Your task to perform on an android device: Open notification settings Image 0: 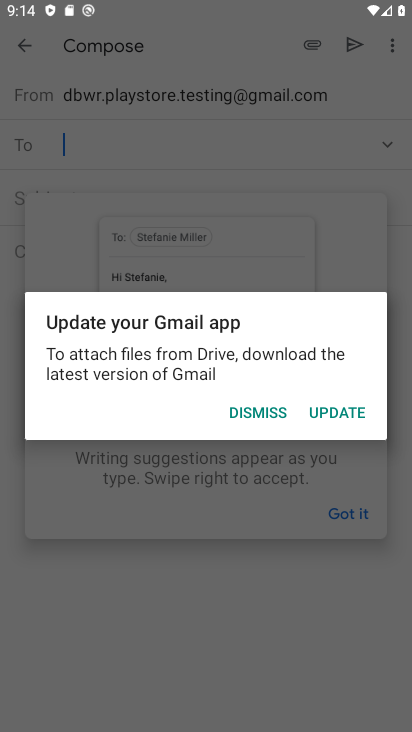
Step 0: press back button
Your task to perform on an android device: Open notification settings Image 1: 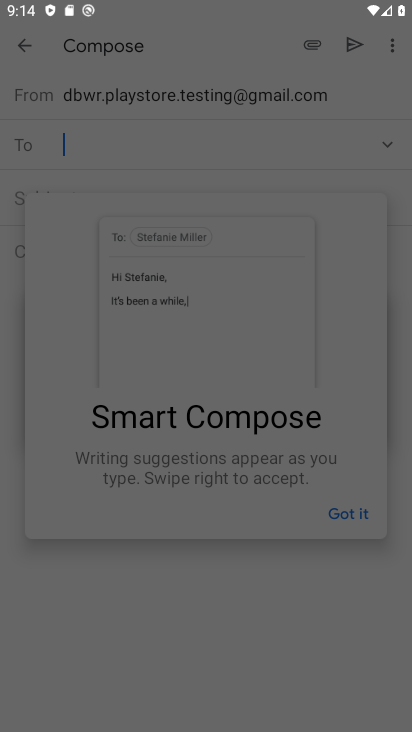
Step 1: press back button
Your task to perform on an android device: Open notification settings Image 2: 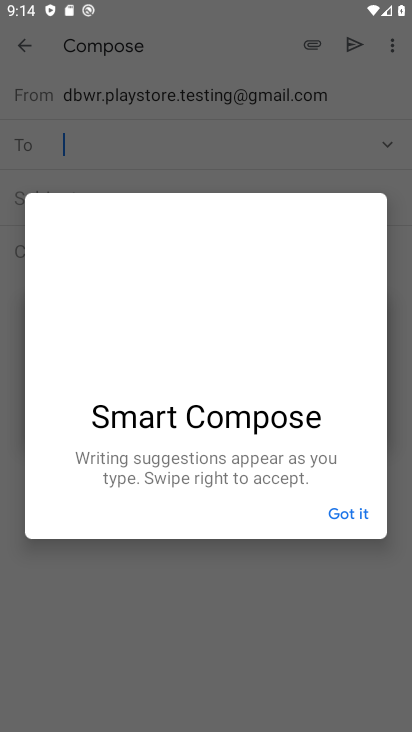
Step 2: press back button
Your task to perform on an android device: Open notification settings Image 3: 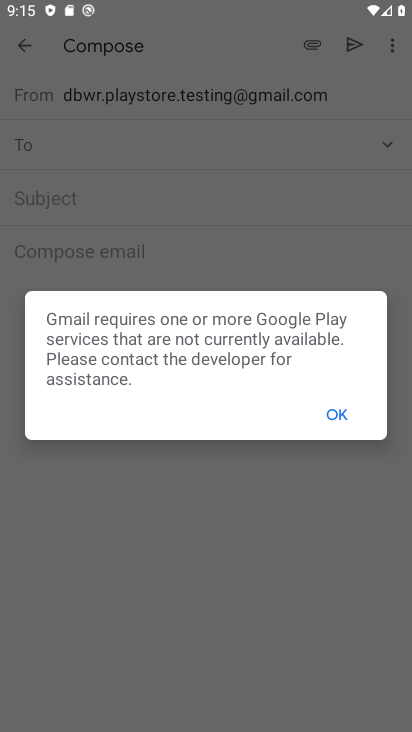
Step 3: press back button
Your task to perform on an android device: Open notification settings Image 4: 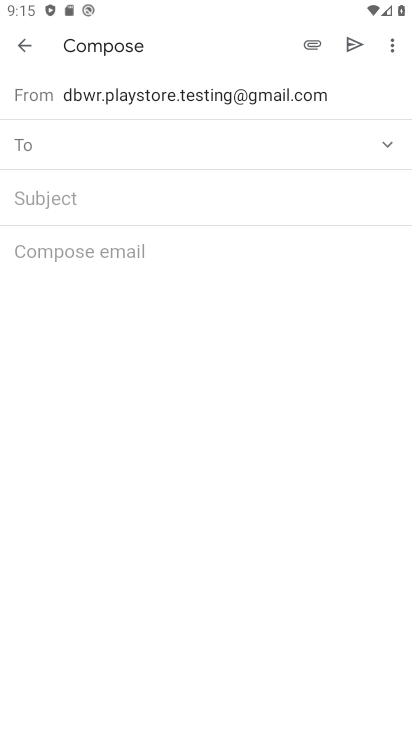
Step 4: press back button
Your task to perform on an android device: Open notification settings Image 5: 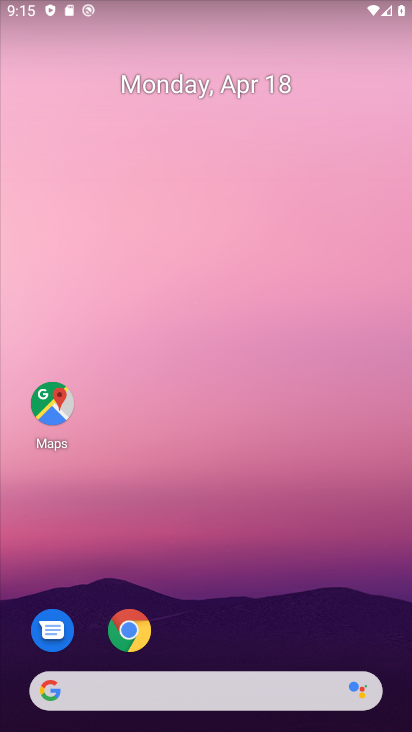
Step 5: drag from (291, 452) to (404, 170)
Your task to perform on an android device: Open notification settings Image 6: 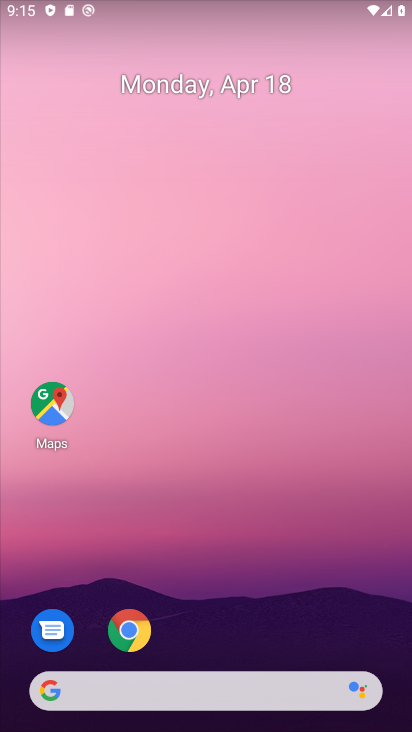
Step 6: drag from (189, 606) to (263, 288)
Your task to perform on an android device: Open notification settings Image 7: 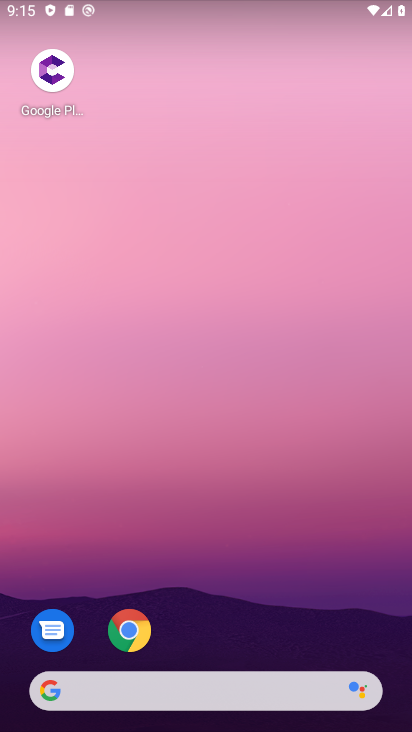
Step 7: drag from (255, 344) to (378, 77)
Your task to perform on an android device: Open notification settings Image 8: 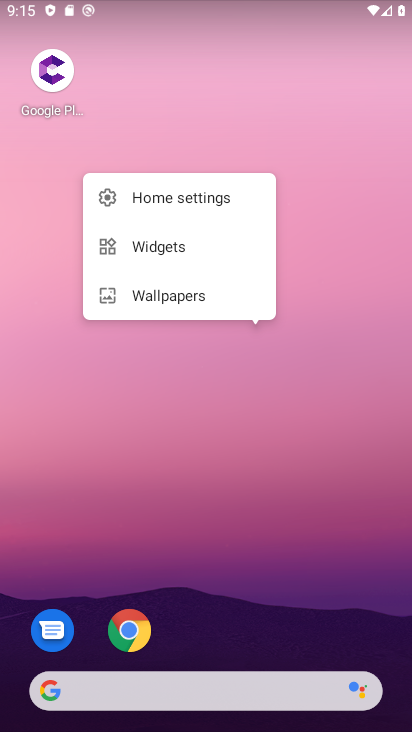
Step 8: drag from (198, 652) to (410, 69)
Your task to perform on an android device: Open notification settings Image 9: 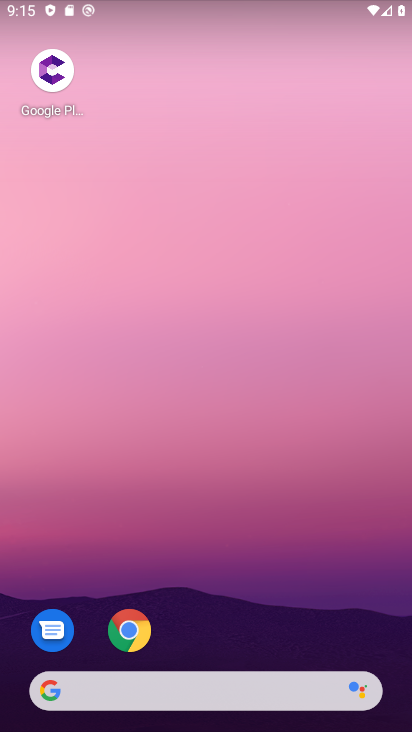
Step 9: drag from (255, 675) to (409, 50)
Your task to perform on an android device: Open notification settings Image 10: 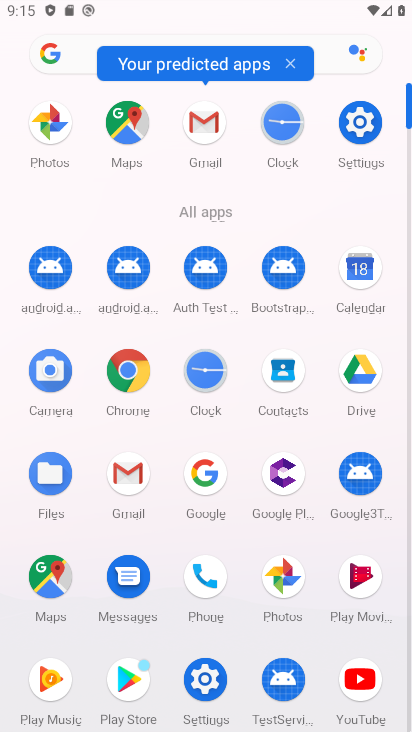
Step 10: click (192, 681)
Your task to perform on an android device: Open notification settings Image 11: 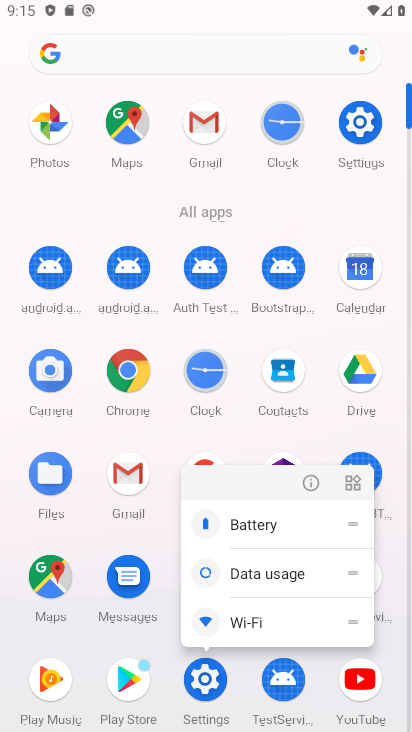
Step 11: click (205, 689)
Your task to perform on an android device: Open notification settings Image 12: 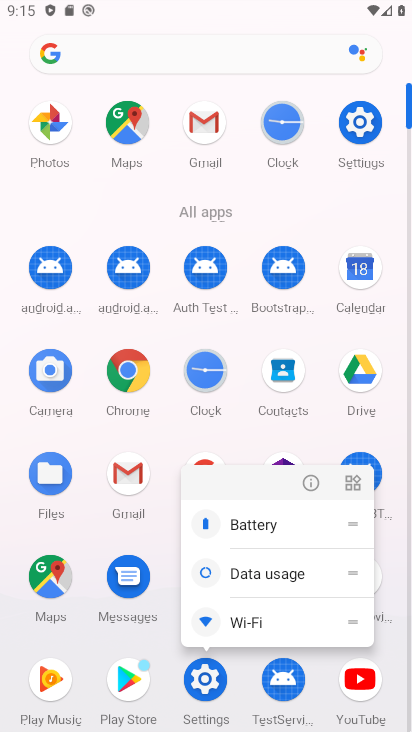
Step 12: click (194, 685)
Your task to perform on an android device: Open notification settings Image 13: 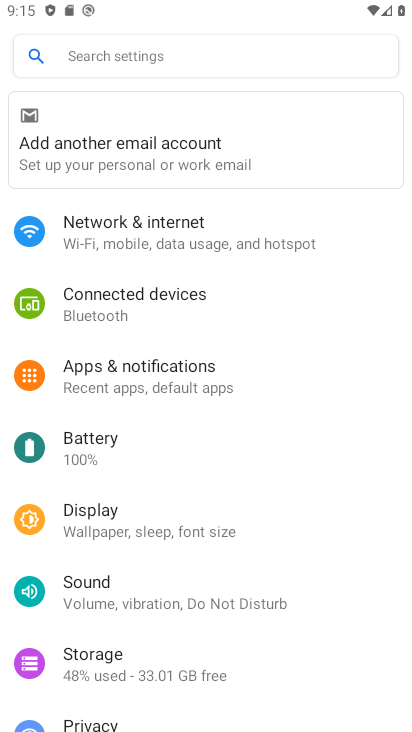
Step 13: click (211, 387)
Your task to perform on an android device: Open notification settings Image 14: 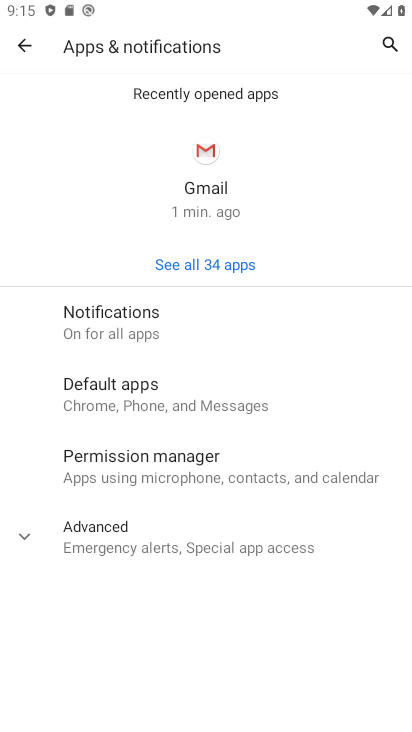
Step 14: click (194, 322)
Your task to perform on an android device: Open notification settings Image 15: 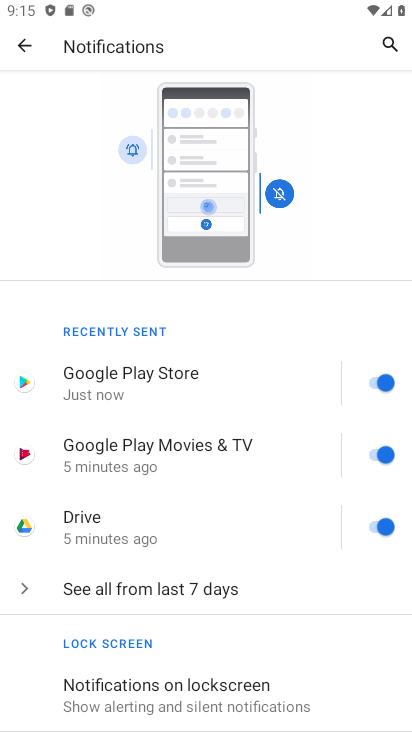
Step 15: drag from (155, 576) to (333, 248)
Your task to perform on an android device: Open notification settings Image 16: 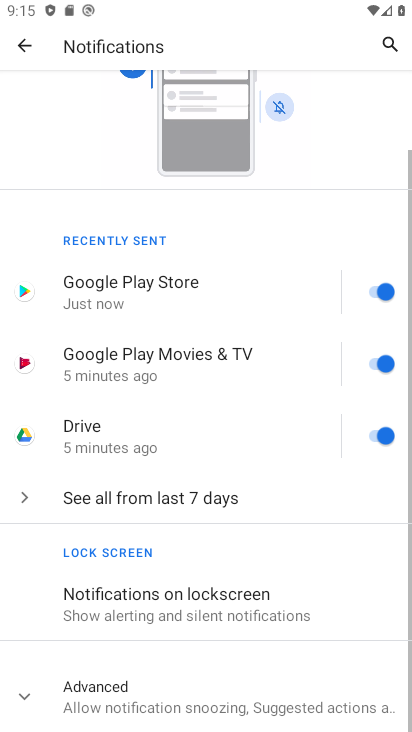
Step 16: click (163, 711)
Your task to perform on an android device: Open notification settings Image 17: 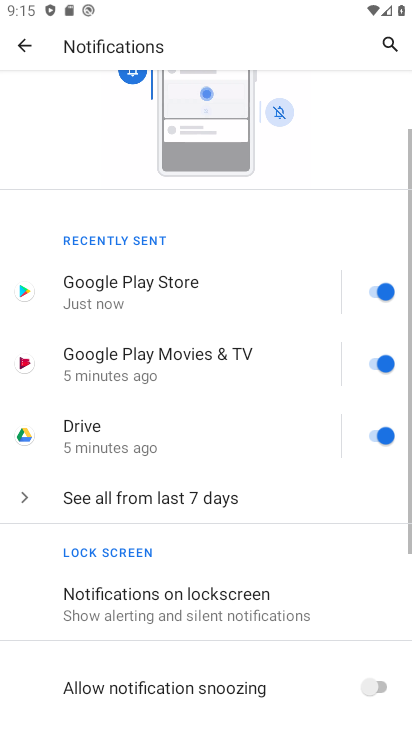
Step 17: task complete